Your task to perform on an android device: empty trash in google photos Image 0: 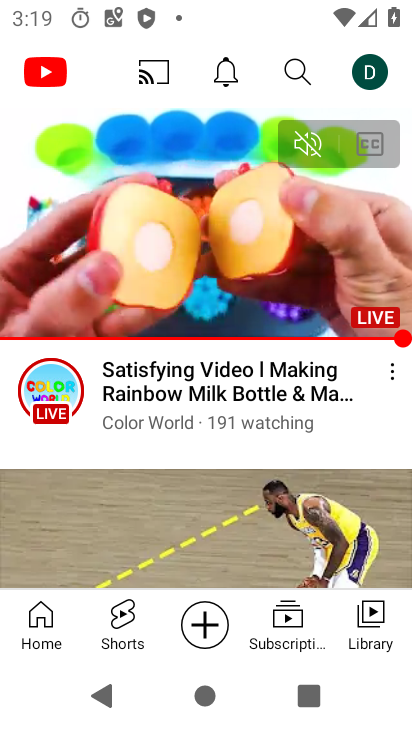
Step 0: press home button
Your task to perform on an android device: empty trash in google photos Image 1: 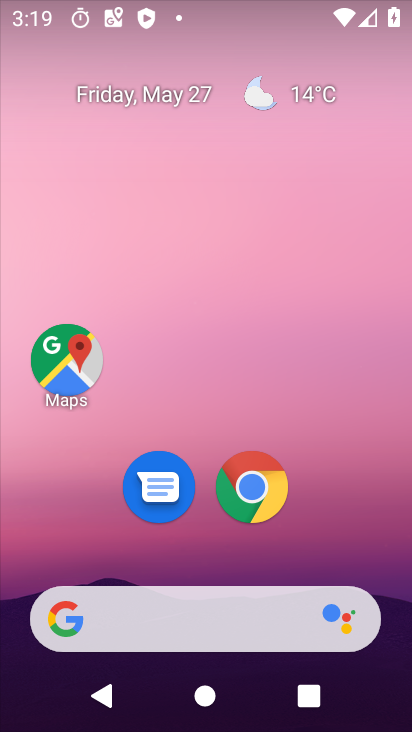
Step 1: drag from (371, 476) to (151, 43)
Your task to perform on an android device: empty trash in google photos Image 2: 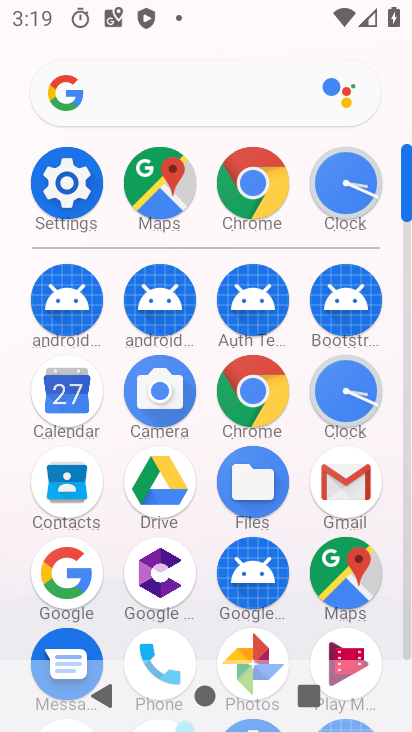
Step 2: drag from (204, 631) to (63, 318)
Your task to perform on an android device: empty trash in google photos Image 3: 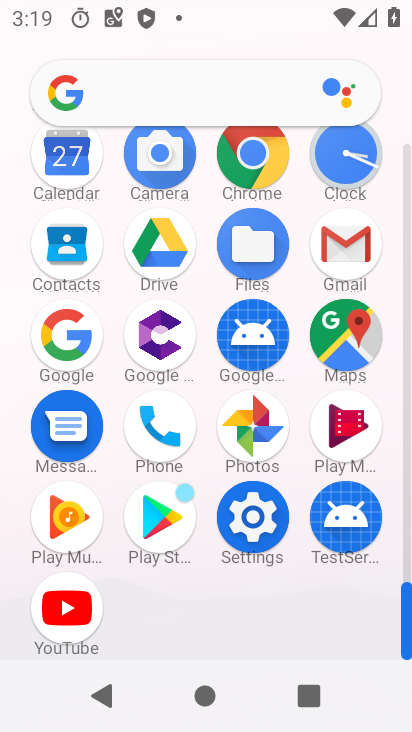
Step 3: click (270, 422)
Your task to perform on an android device: empty trash in google photos Image 4: 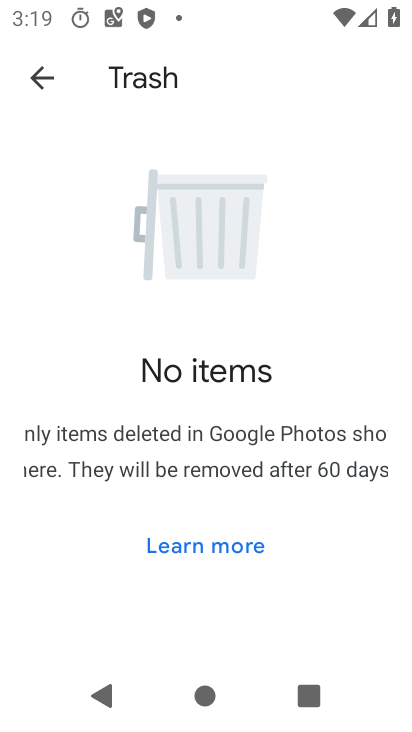
Step 4: task complete